Your task to perform on an android device: refresh tabs in the chrome app Image 0: 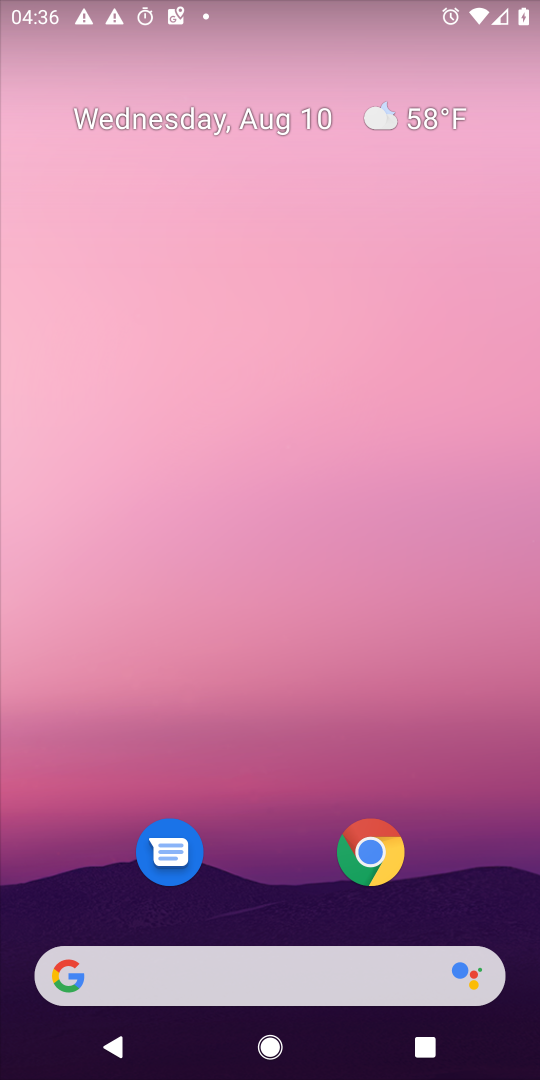
Step 0: drag from (278, 908) to (138, 220)
Your task to perform on an android device: refresh tabs in the chrome app Image 1: 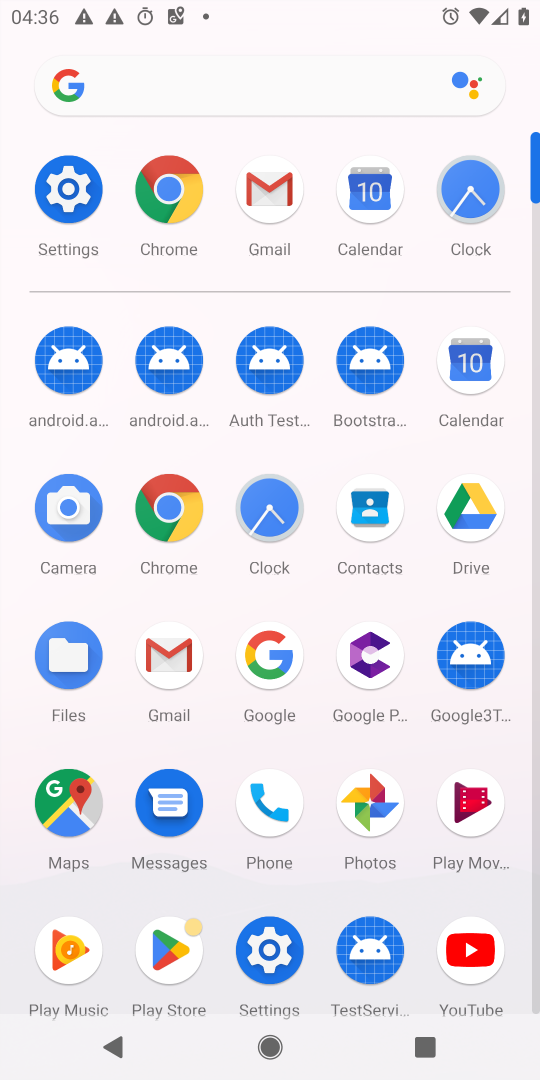
Step 1: click (173, 501)
Your task to perform on an android device: refresh tabs in the chrome app Image 2: 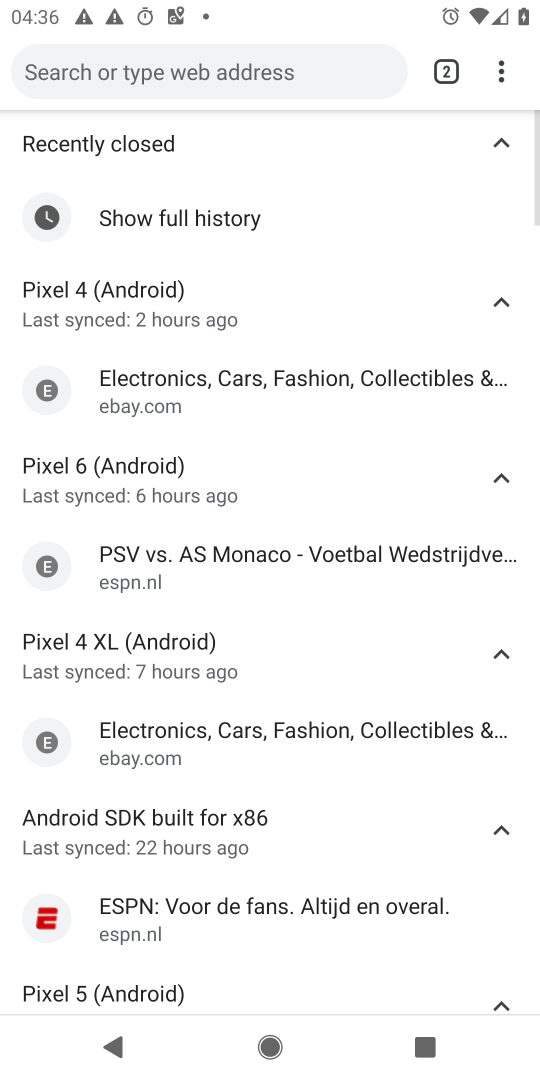
Step 2: click (489, 65)
Your task to perform on an android device: refresh tabs in the chrome app Image 3: 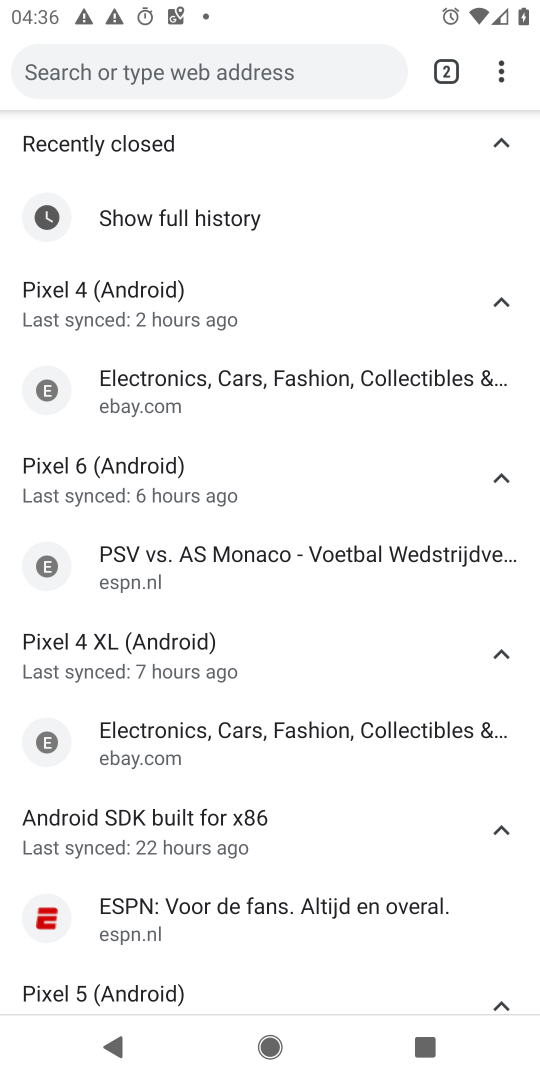
Step 3: task complete